Your task to perform on an android device: Open display settings Image 0: 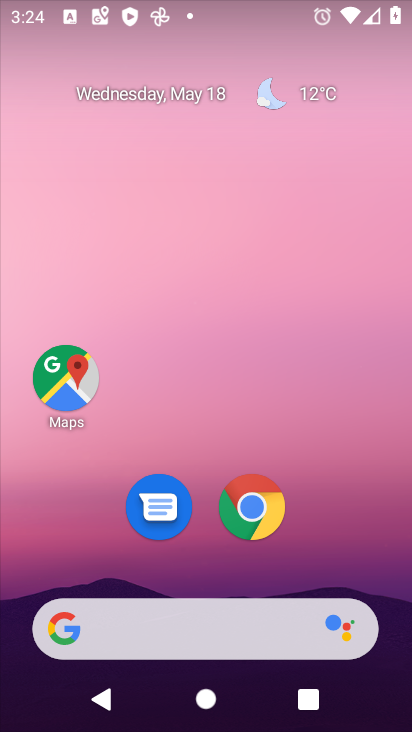
Step 0: drag from (399, 624) to (292, 103)
Your task to perform on an android device: Open display settings Image 1: 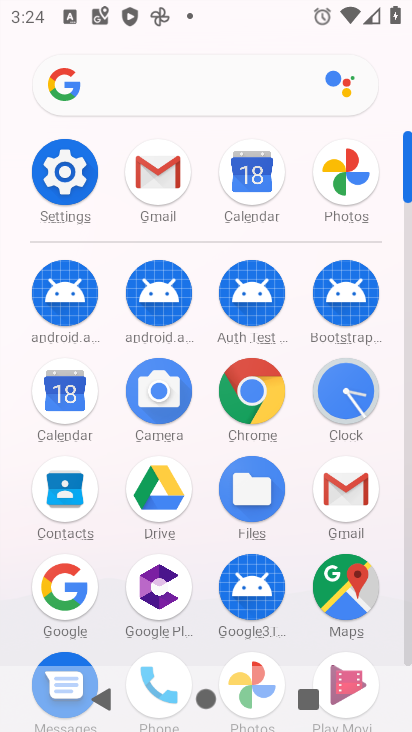
Step 1: click (407, 649)
Your task to perform on an android device: Open display settings Image 2: 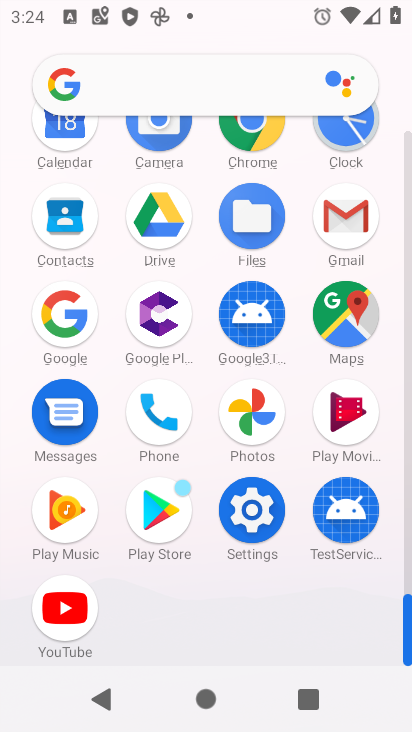
Step 2: click (251, 512)
Your task to perform on an android device: Open display settings Image 3: 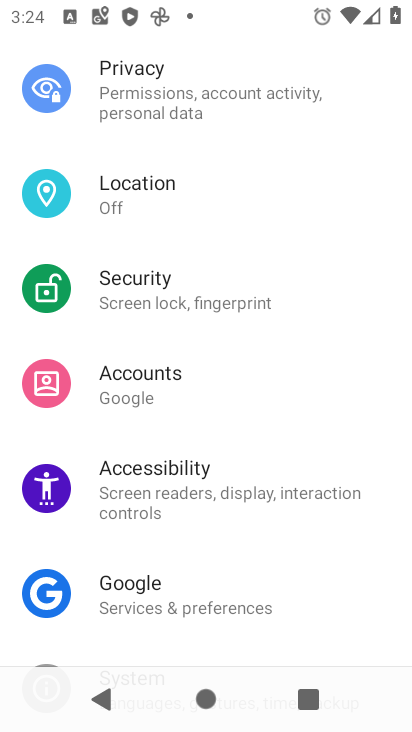
Step 3: drag from (350, 138) to (359, 539)
Your task to perform on an android device: Open display settings Image 4: 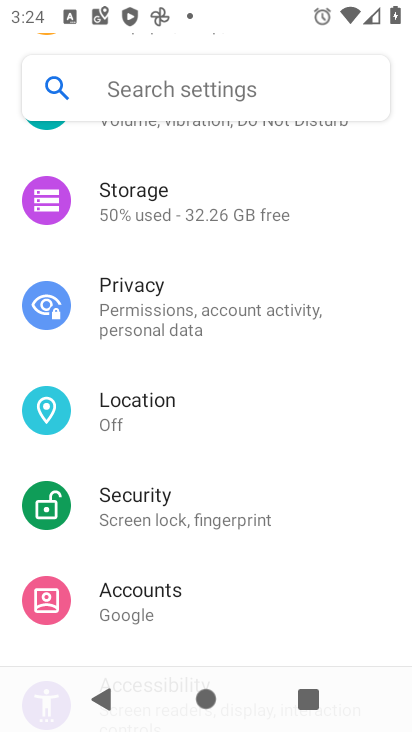
Step 4: drag from (341, 220) to (313, 492)
Your task to perform on an android device: Open display settings Image 5: 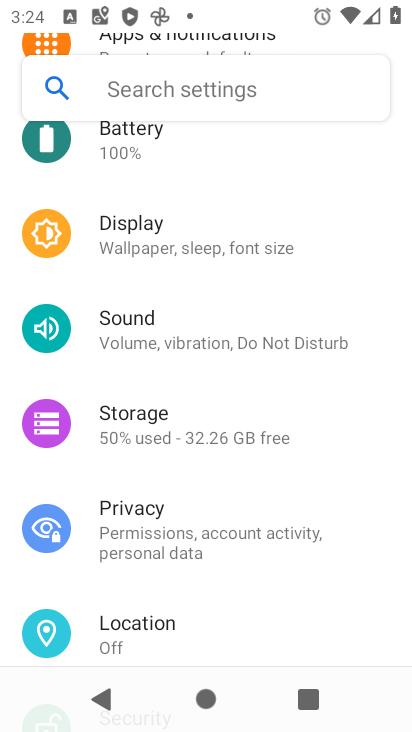
Step 5: click (125, 232)
Your task to perform on an android device: Open display settings Image 6: 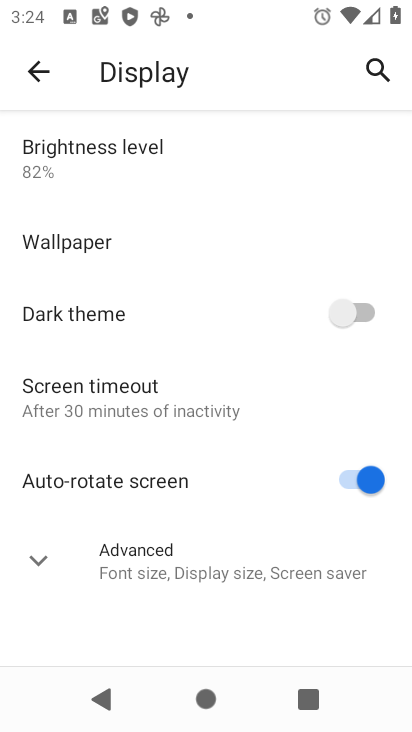
Step 6: click (38, 557)
Your task to perform on an android device: Open display settings Image 7: 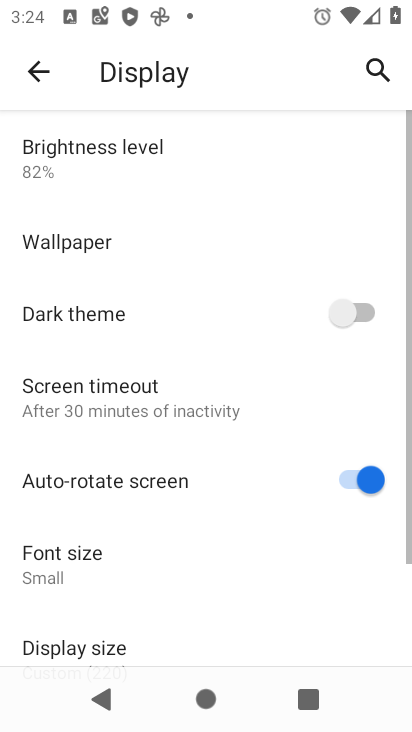
Step 7: task complete